Your task to perform on an android device: remove spam from my inbox in the gmail app Image 0: 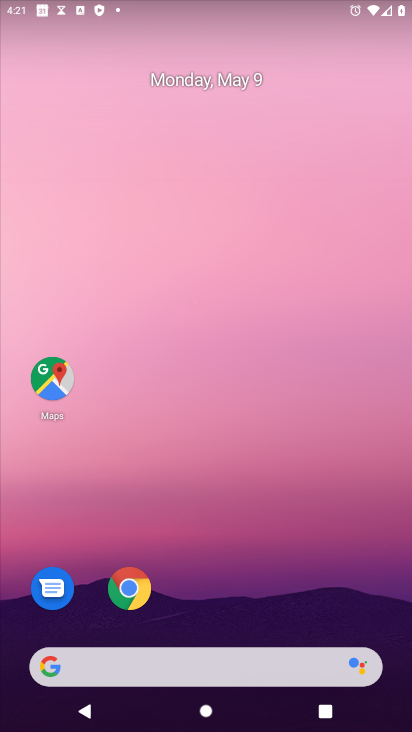
Step 0: drag from (218, 304) to (198, 92)
Your task to perform on an android device: remove spam from my inbox in the gmail app Image 1: 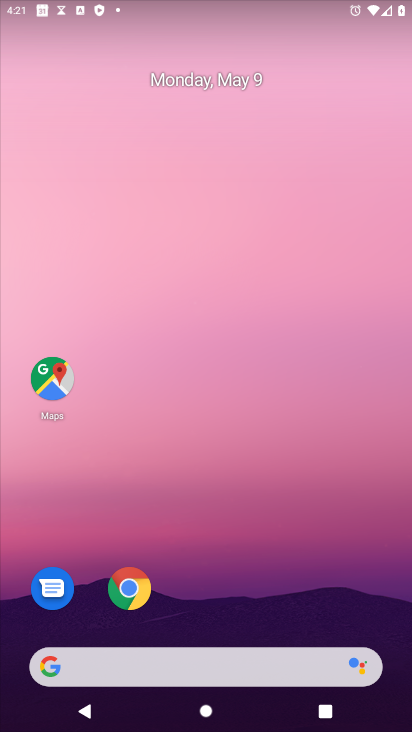
Step 1: drag from (281, 562) to (220, 7)
Your task to perform on an android device: remove spam from my inbox in the gmail app Image 2: 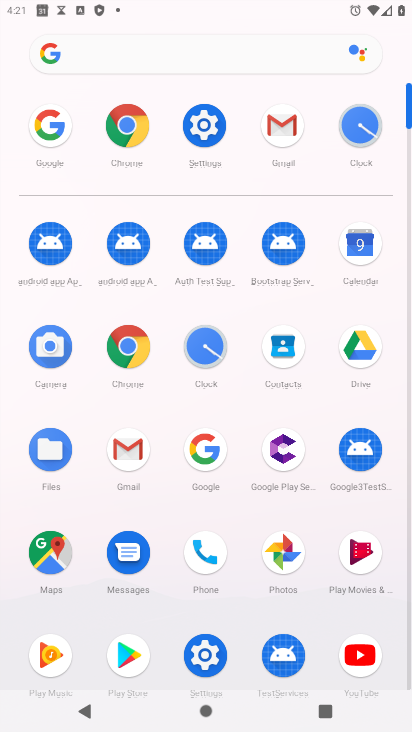
Step 2: click (134, 456)
Your task to perform on an android device: remove spam from my inbox in the gmail app Image 3: 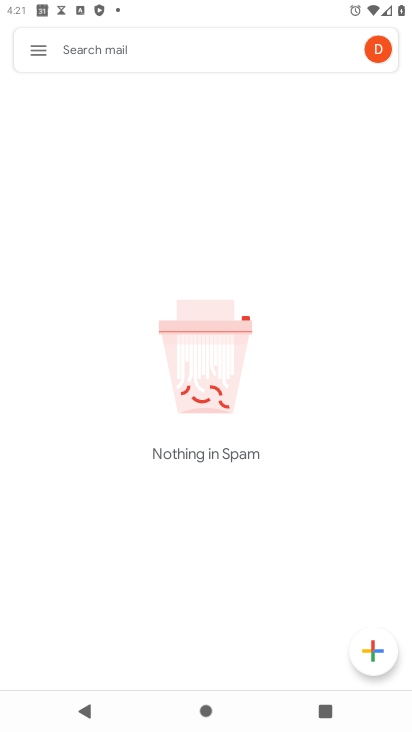
Step 3: click (32, 39)
Your task to perform on an android device: remove spam from my inbox in the gmail app Image 4: 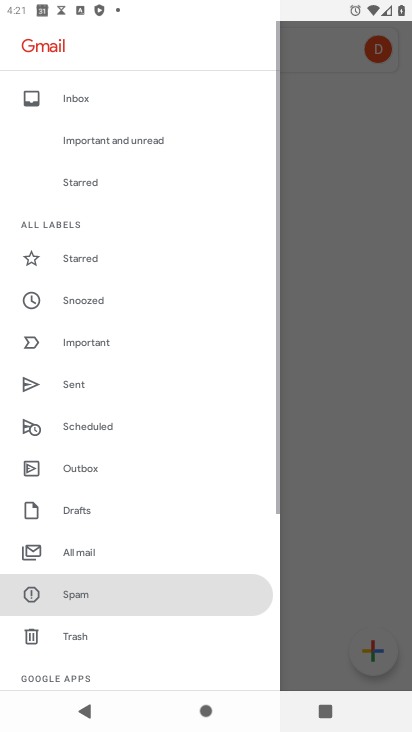
Step 4: click (106, 599)
Your task to perform on an android device: remove spam from my inbox in the gmail app Image 5: 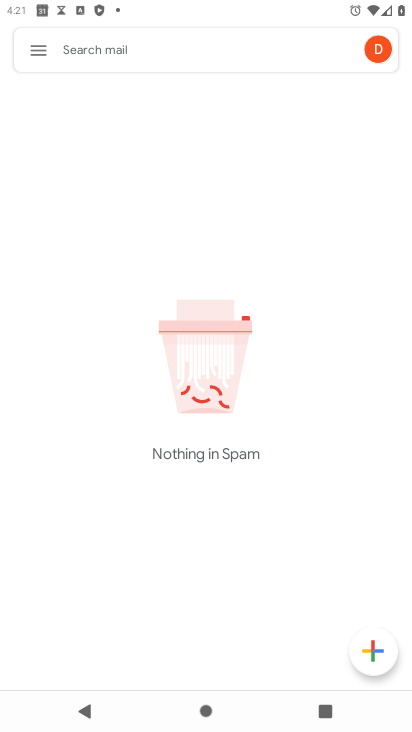
Step 5: task complete